Your task to perform on an android device: Open calendar and show me the first week of next month Image 0: 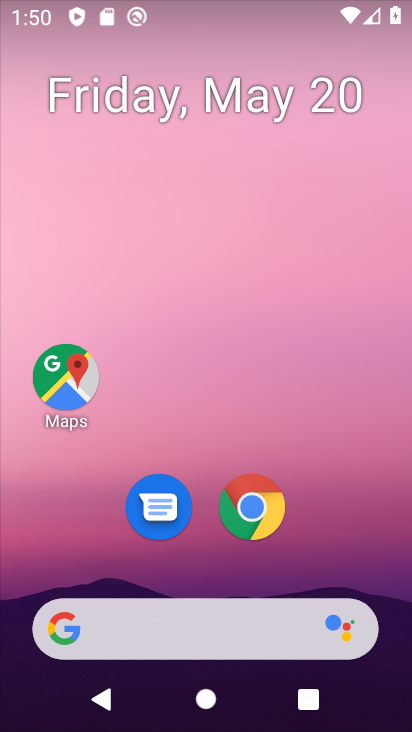
Step 0: click (212, 88)
Your task to perform on an android device: Open calendar and show me the first week of next month Image 1: 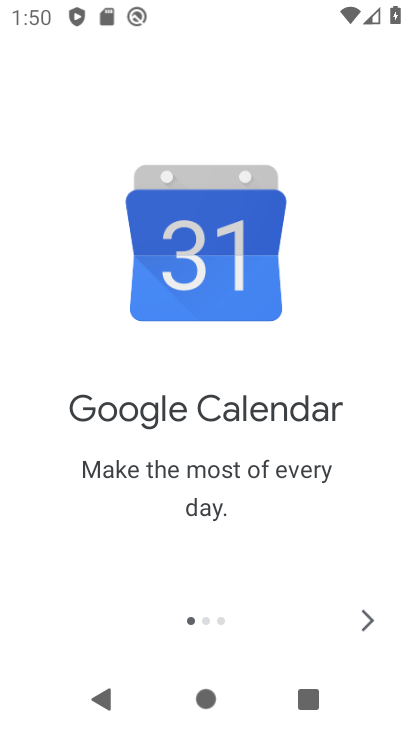
Step 1: click (364, 632)
Your task to perform on an android device: Open calendar and show me the first week of next month Image 2: 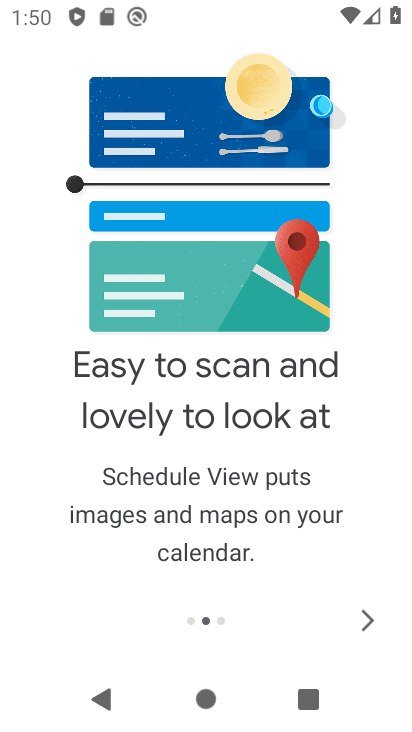
Step 2: click (364, 632)
Your task to perform on an android device: Open calendar and show me the first week of next month Image 3: 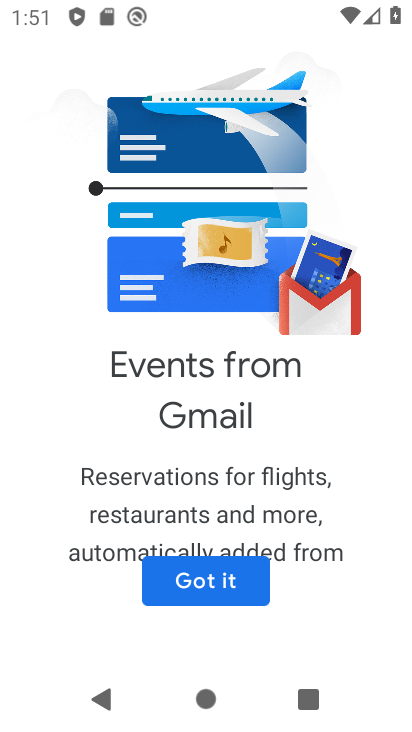
Step 3: click (255, 582)
Your task to perform on an android device: Open calendar and show me the first week of next month Image 4: 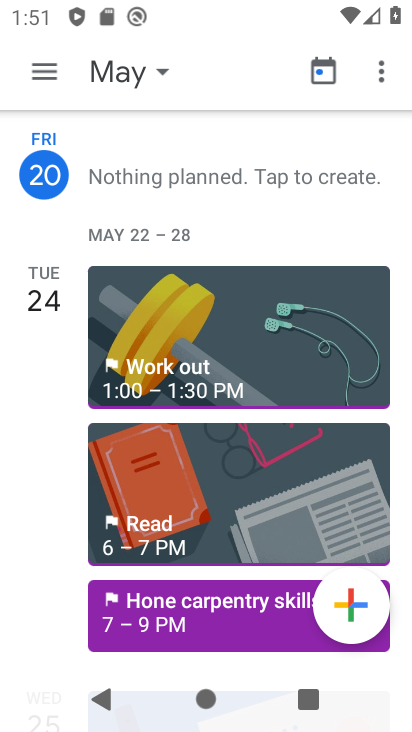
Step 4: click (122, 74)
Your task to perform on an android device: Open calendar and show me the first week of next month Image 5: 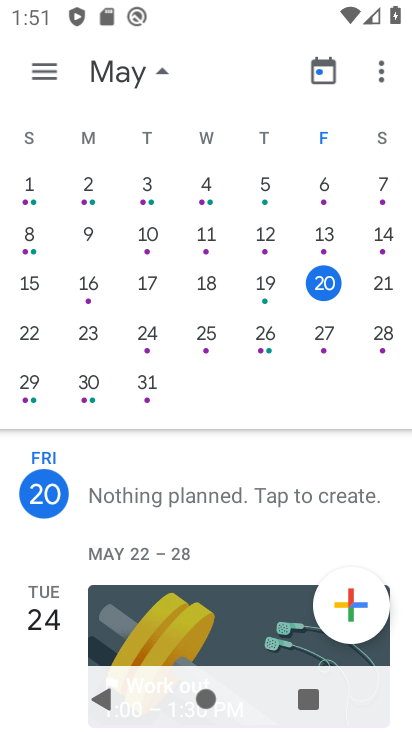
Step 5: drag from (366, 401) to (0, 398)
Your task to perform on an android device: Open calendar and show me the first week of next month Image 6: 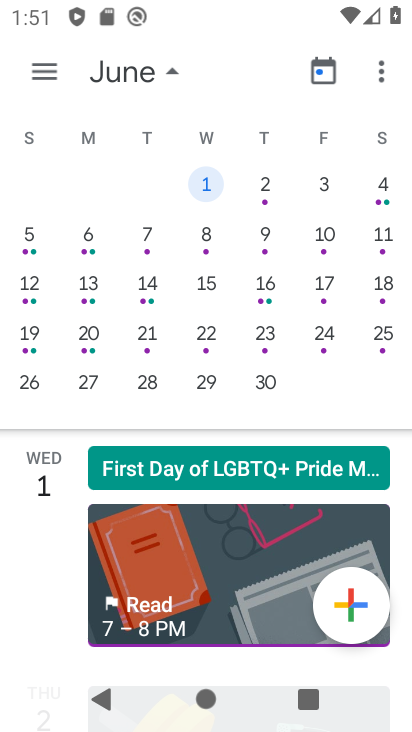
Step 6: click (265, 187)
Your task to perform on an android device: Open calendar and show me the first week of next month Image 7: 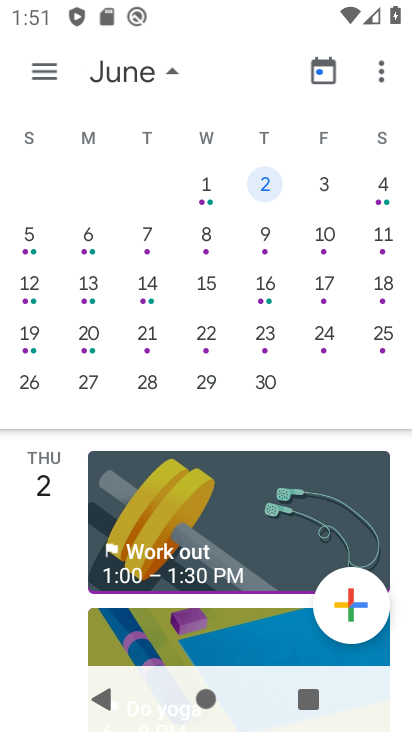
Step 7: task complete